Your task to perform on an android device: Go to eBay Image 0: 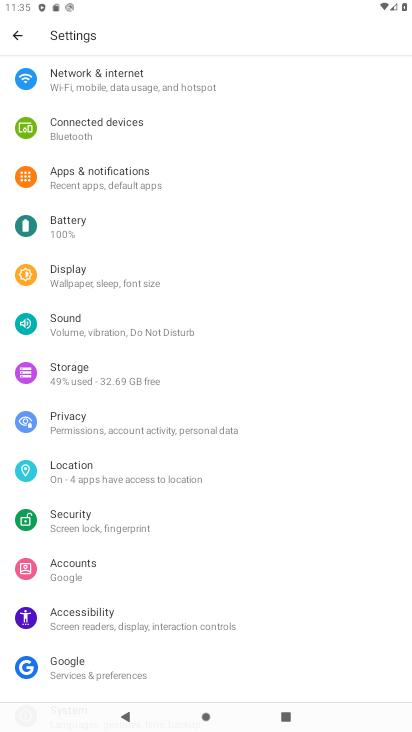
Step 0: press home button
Your task to perform on an android device: Go to eBay Image 1: 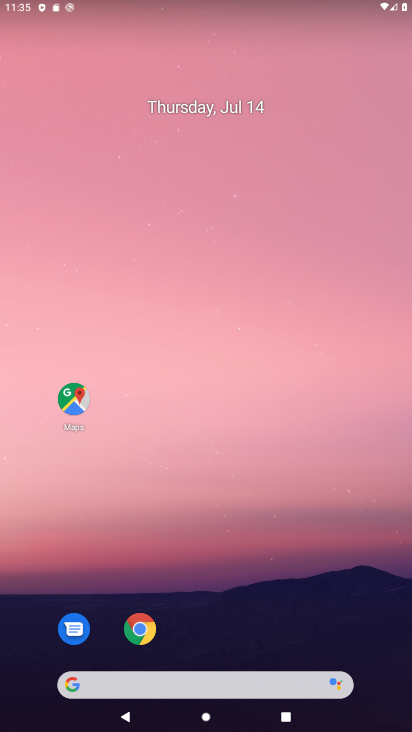
Step 1: click (139, 625)
Your task to perform on an android device: Go to eBay Image 2: 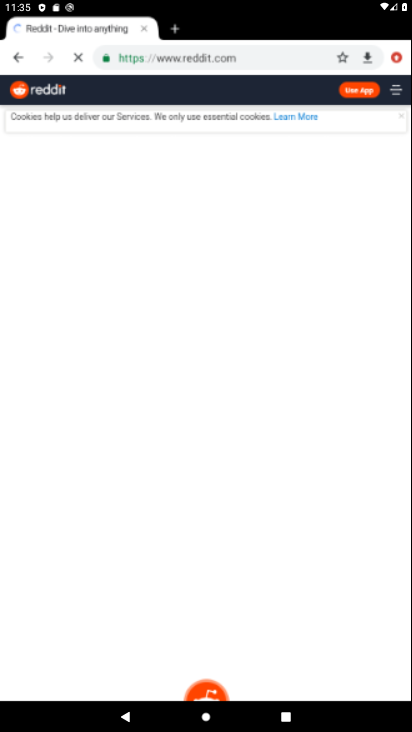
Step 2: click (183, 52)
Your task to perform on an android device: Go to eBay Image 3: 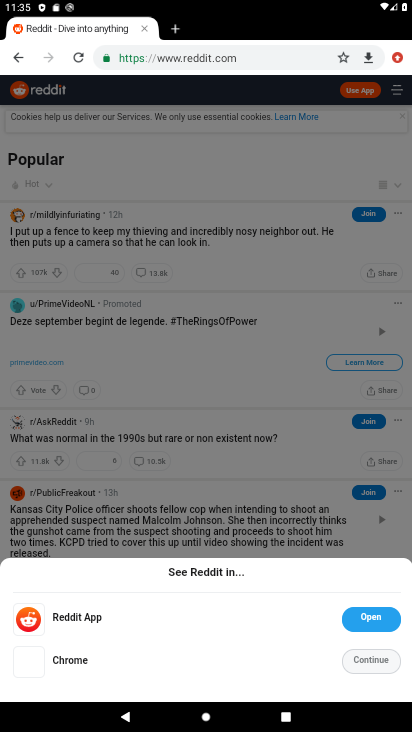
Step 3: click (254, 54)
Your task to perform on an android device: Go to eBay Image 4: 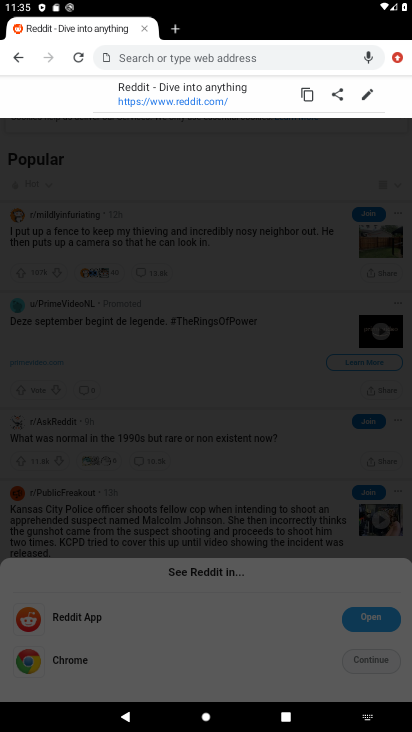
Step 4: type "ebay"
Your task to perform on an android device: Go to eBay Image 5: 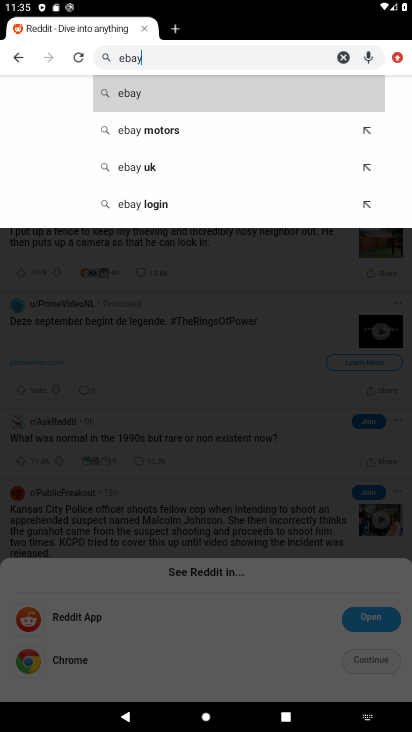
Step 5: click (191, 97)
Your task to perform on an android device: Go to eBay Image 6: 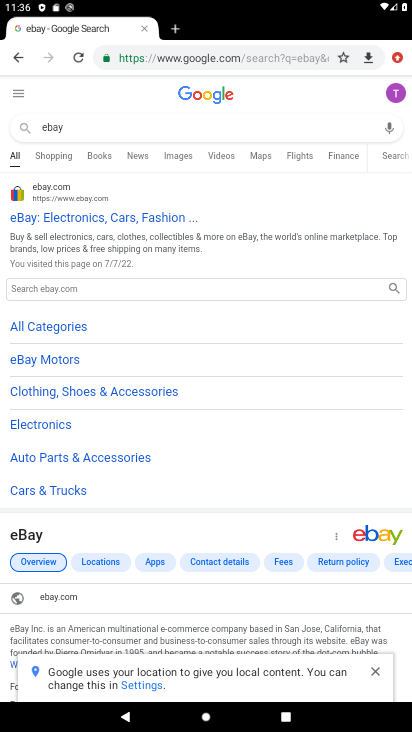
Step 6: click (114, 225)
Your task to perform on an android device: Go to eBay Image 7: 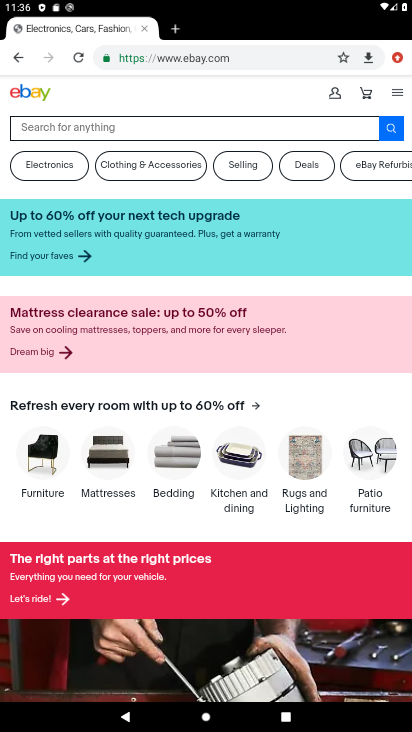
Step 7: task complete